Your task to perform on an android device: What's the weather today? Image 0: 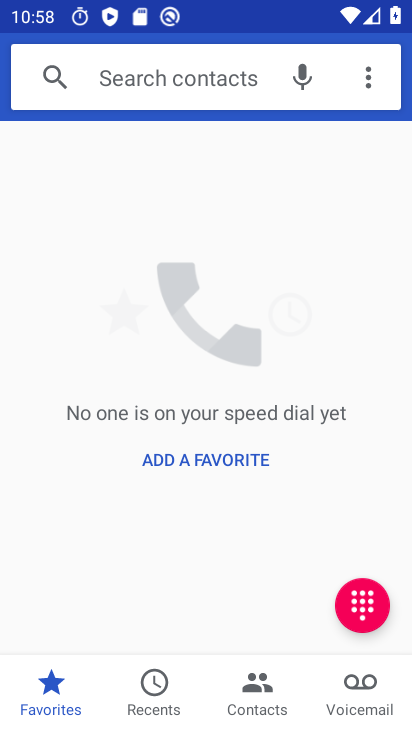
Step 0: press home button
Your task to perform on an android device: What's the weather today? Image 1: 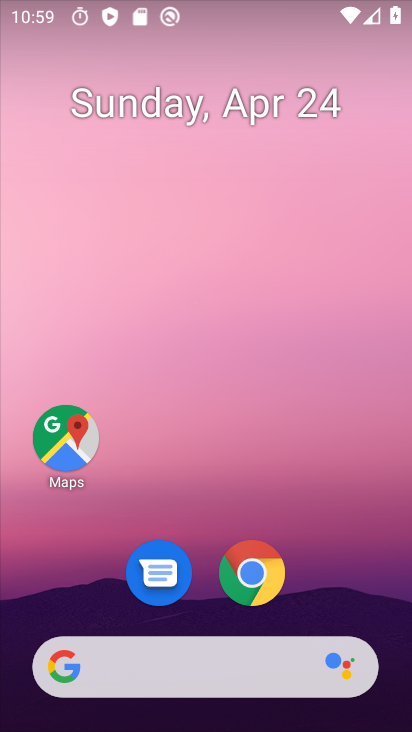
Step 1: drag from (224, 719) to (223, 120)
Your task to perform on an android device: What's the weather today? Image 2: 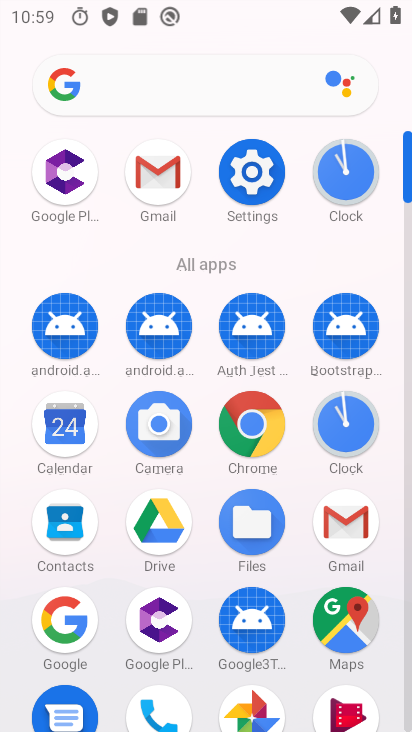
Step 2: click (57, 617)
Your task to perform on an android device: What's the weather today? Image 3: 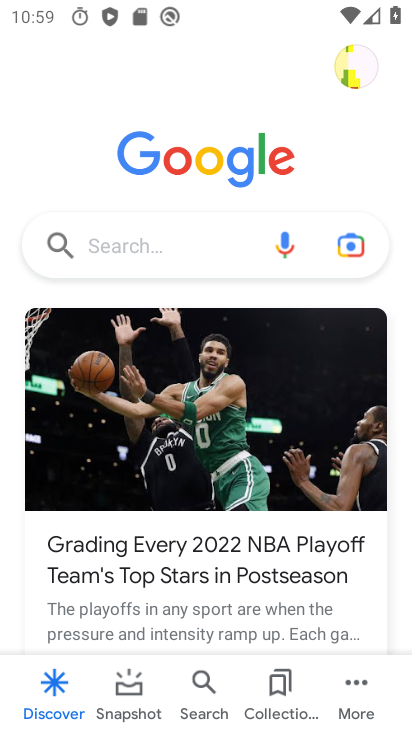
Step 3: click (170, 249)
Your task to perform on an android device: What's the weather today? Image 4: 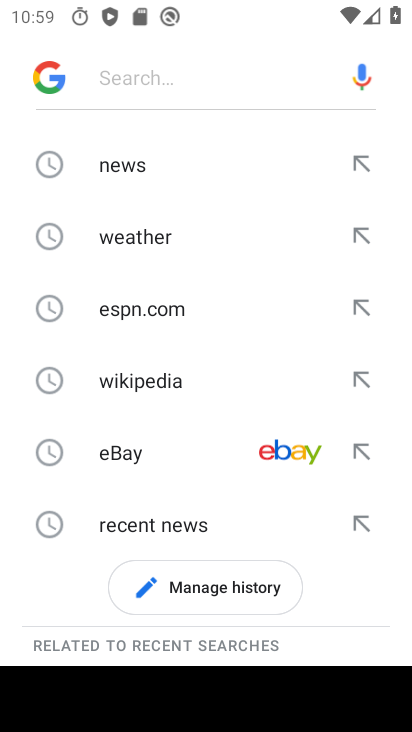
Step 4: click (110, 233)
Your task to perform on an android device: What's the weather today? Image 5: 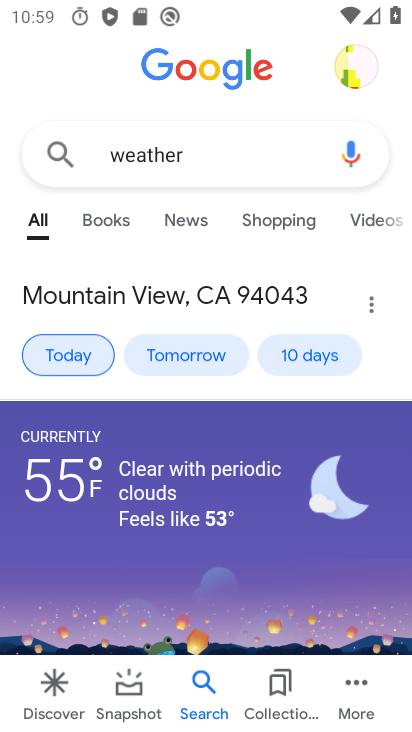
Step 5: task complete